Your task to perform on an android device: turn on notifications settings in the gmail app Image 0: 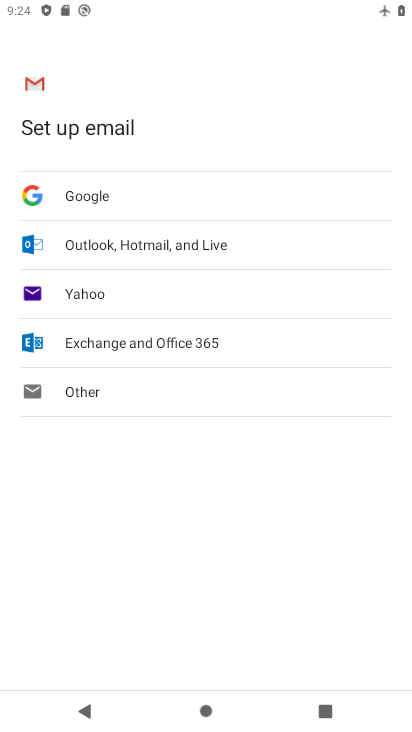
Step 0: drag from (212, 626) to (224, 151)
Your task to perform on an android device: turn on notifications settings in the gmail app Image 1: 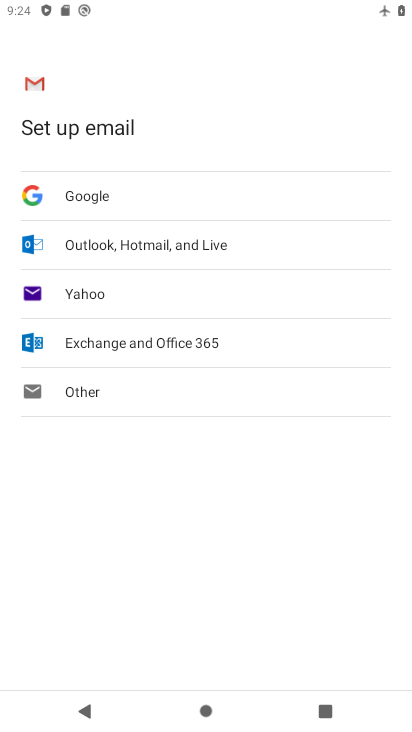
Step 1: press back button
Your task to perform on an android device: turn on notifications settings in the gmail app Image 2: 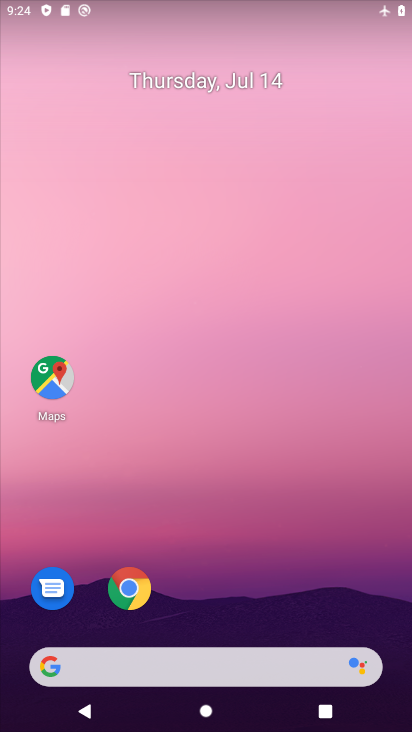
Step 2: drag from (245, 616) to (264, 94)
Your task to perform on an android device: turn on notifications settings in the gmail app Image 3: 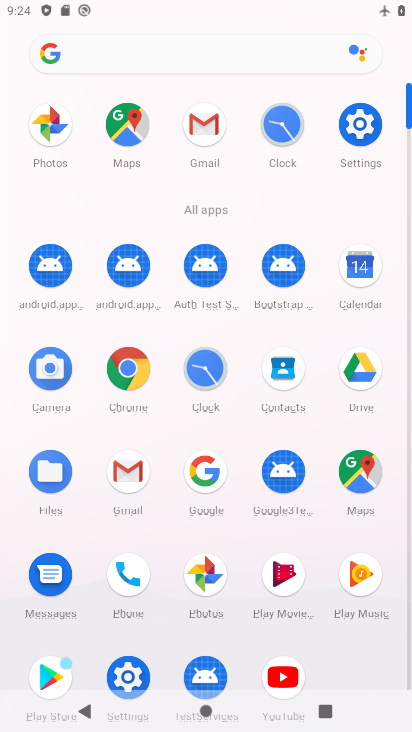
Step 3: click (203, 130)
Your task to perform on an android device: turn on notifications settings in the gmail app Image 4: 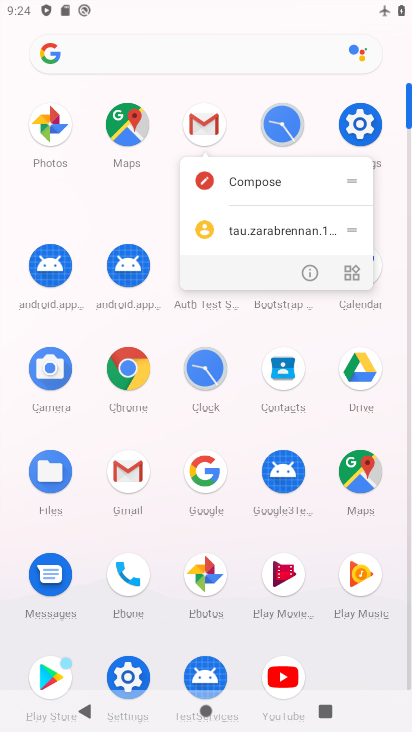
Step 4: click (309, 279)
Your task to perform on an android device: turn on notifications settings in the gmail app Image 5: 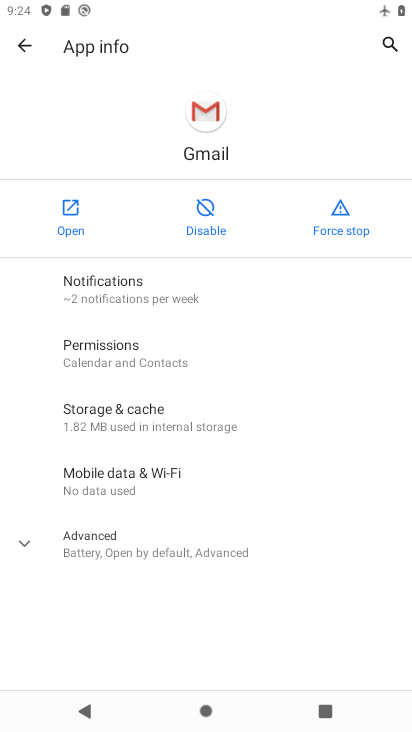
Step 5: click (123, 295)
Your task to perform on an android device: turn on notifications settings in the gmail app Image 6: 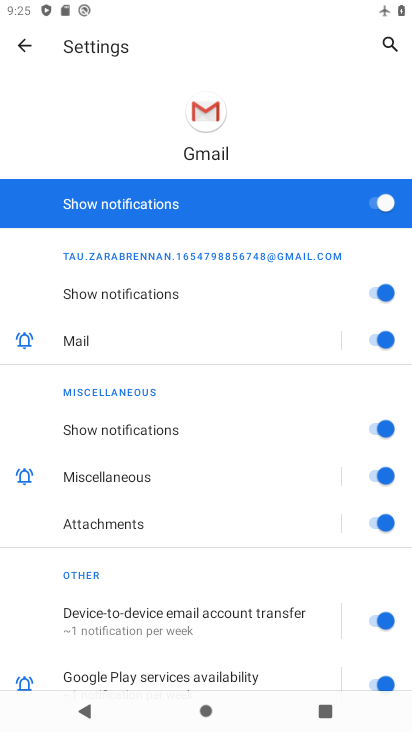
Step 6: task complete